Your task to perform on an android device: Open maps Image 0: 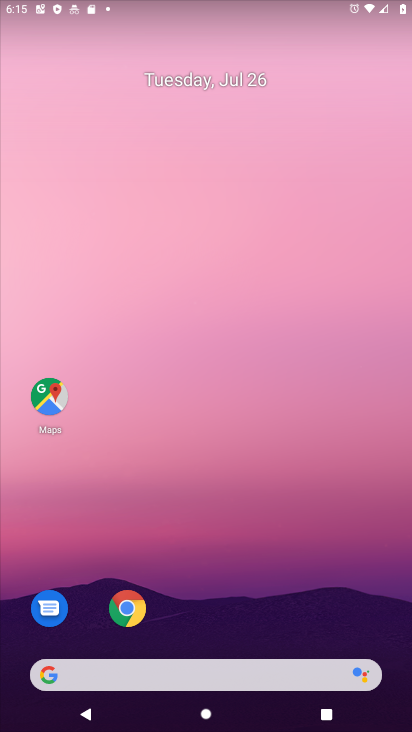
Step 0: press home button
Your task to perform on an android device: Open maps Image 1: 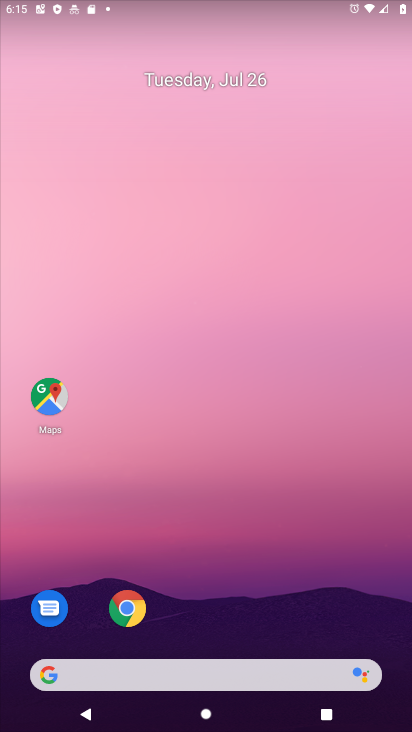
Step 1: drag from (274, 612) to (297, 25)
Your task to perform on an android device: Open maps Image 2: 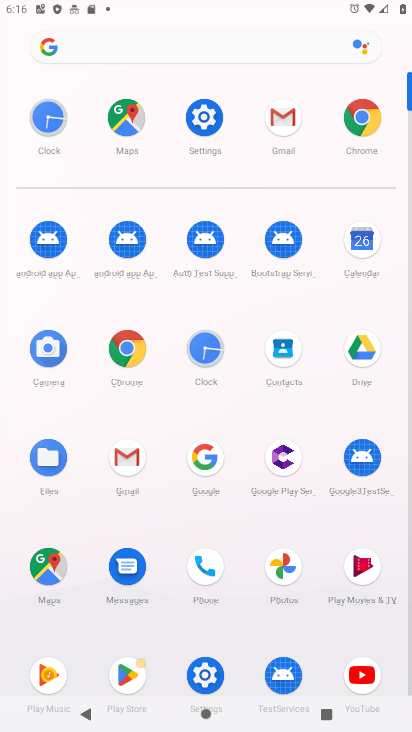
Step 2: click (33, 572)
Your task to perform on an android device: Open maps Image 3: 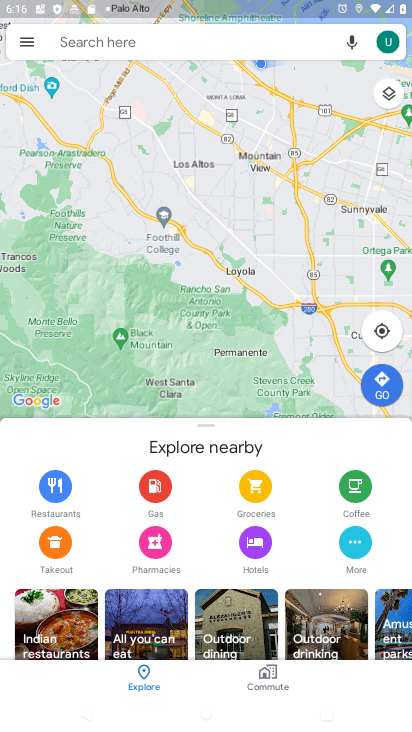
Step 3: task complete